Your task to perform on an android device: Open settings Image 0: 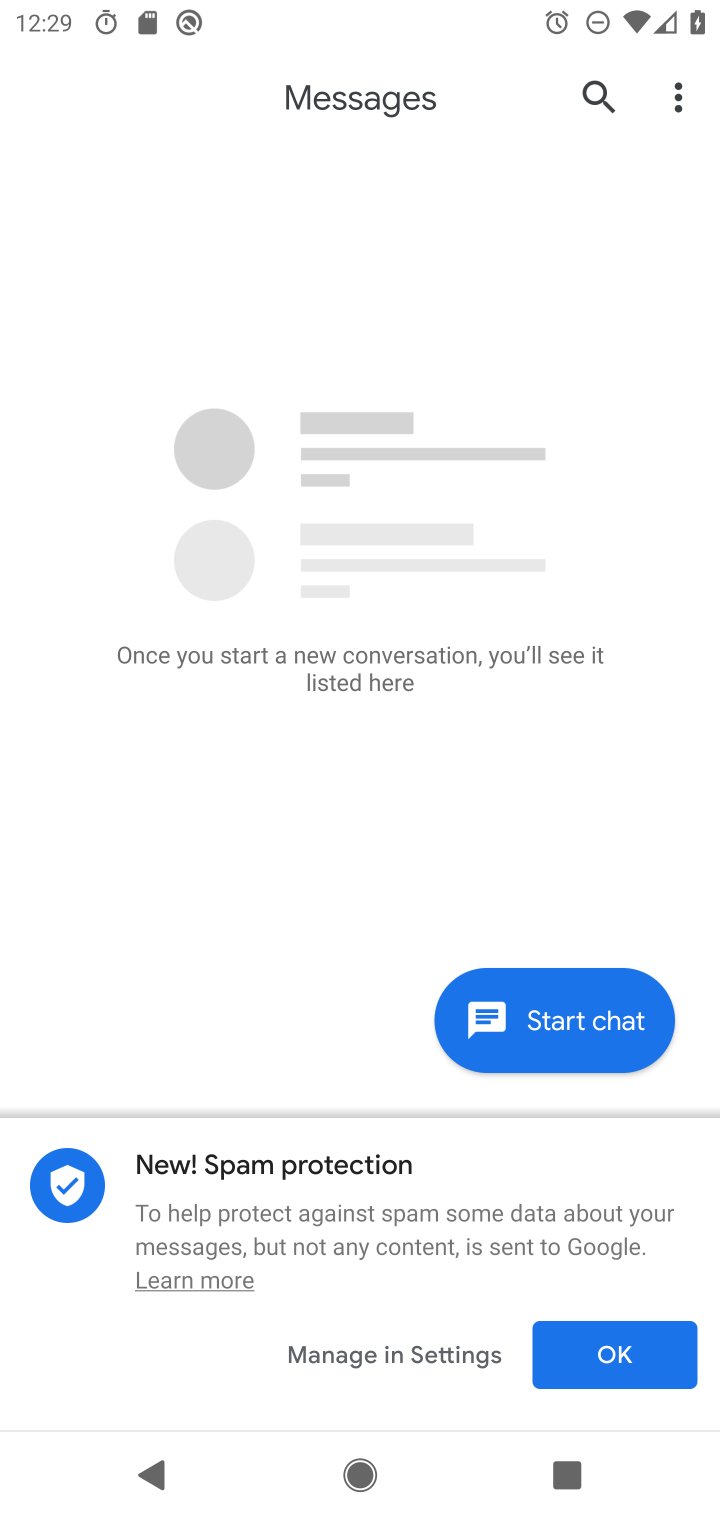
Step 0: press home button
Your task to perform on an android device: Open settings Image 1: 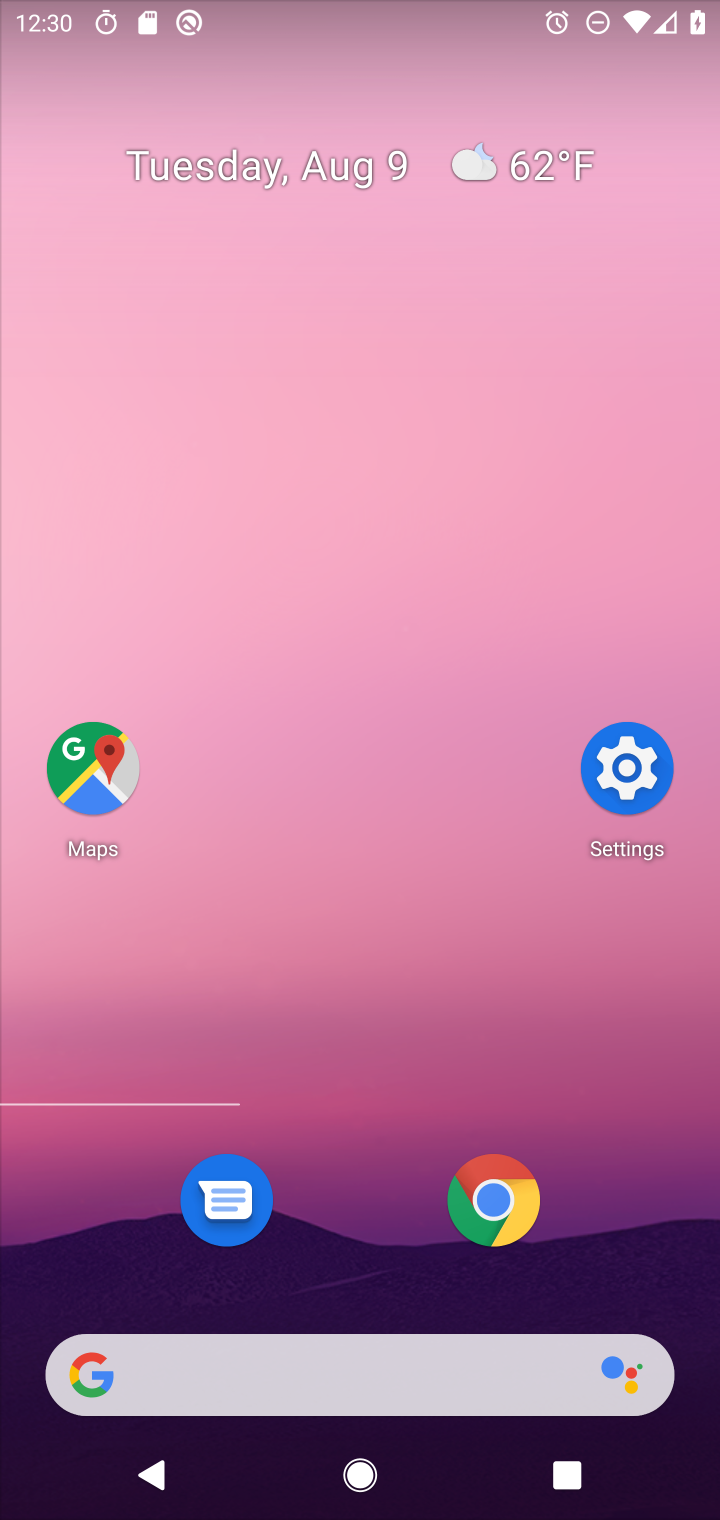
Step 1: click (628, 765)
Your task to perform on an android device: Open settings Image 2: 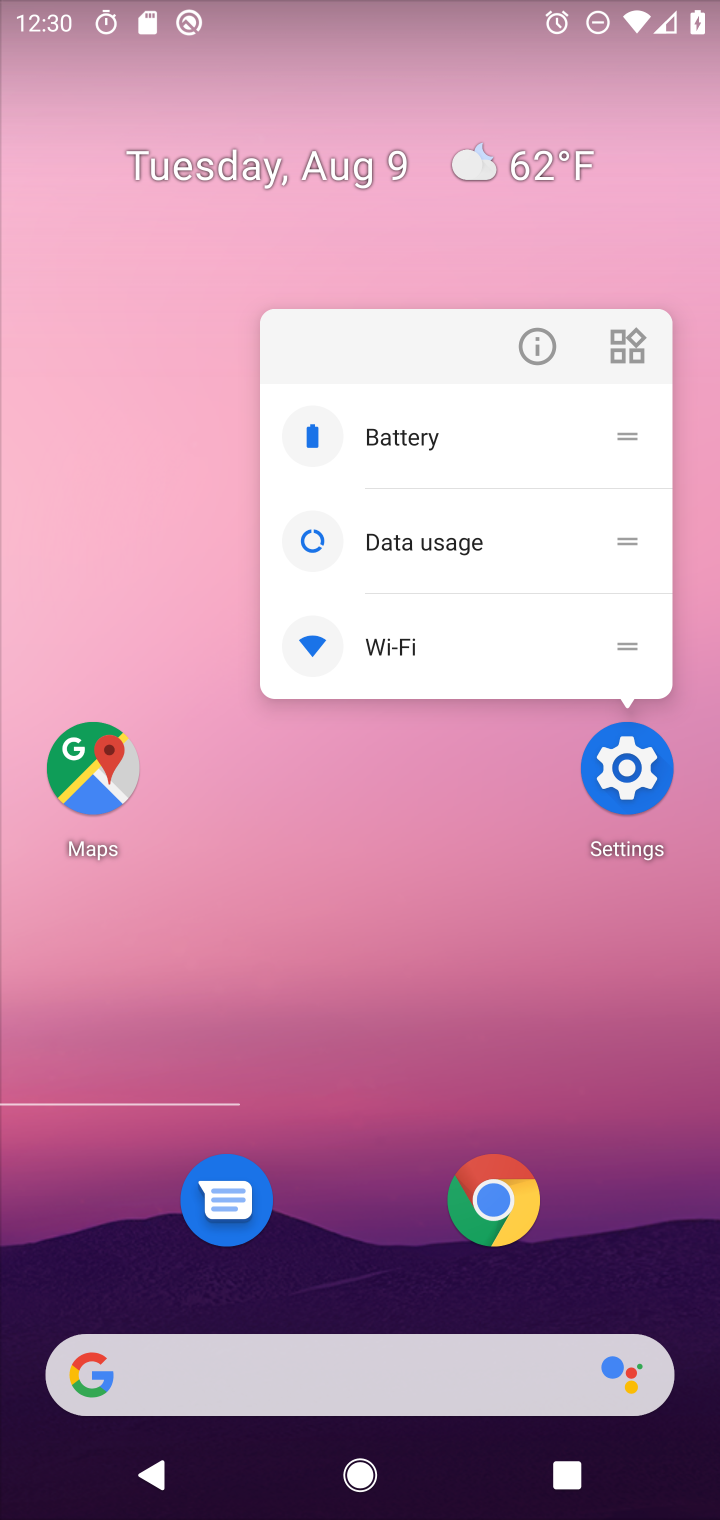
Step 2: click (630, 767)
Your task to perform on an android device: Open settings Image 3: 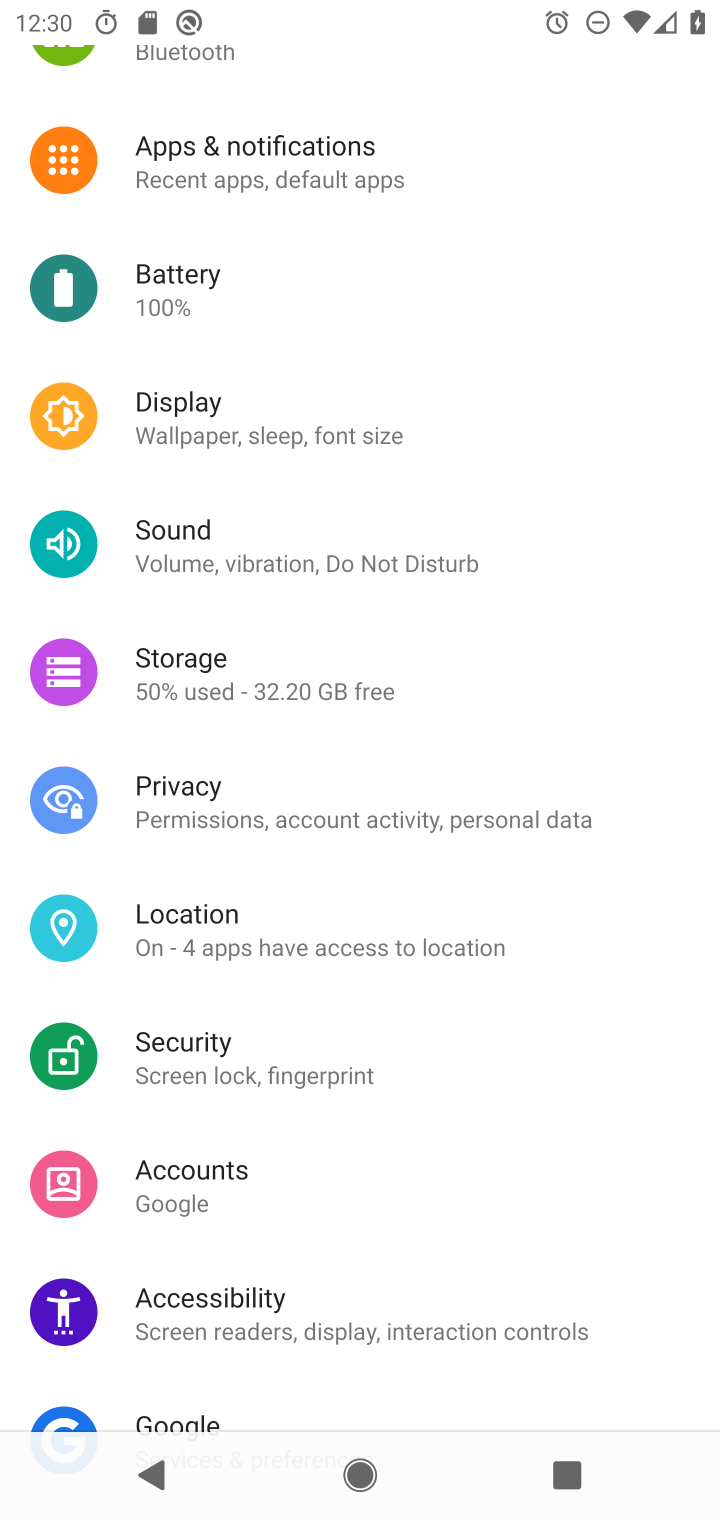
Step 3: task complete